Your task to perform on an android device: Play the last video I watched on Youtube Image 0: 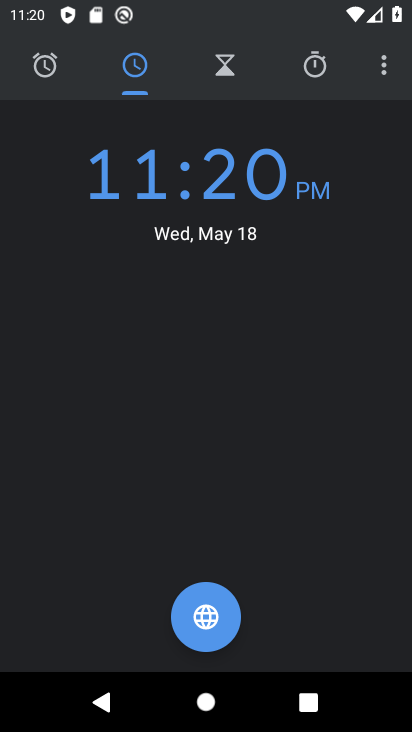
Step 0: press back button
Your task to perform on an android device: Play the last video I watched on Youtube Image 1: 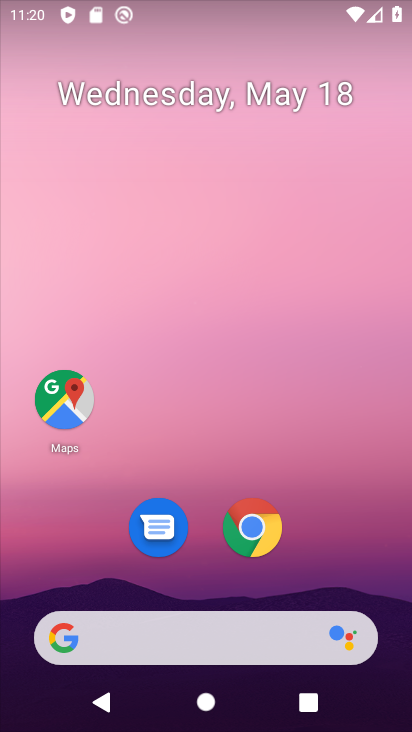
Step 1: drag from (245, 572) to (341, 6)
Your task to perform on an android device: Play the last video I watched on Youtube Image 2: 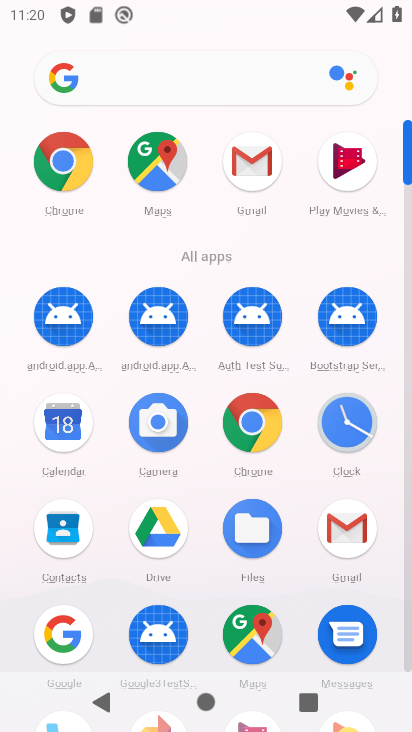
Step 2: drag from (219, 575) to (320, 25)
Your task to perform on an android device: Play the last video I watched on Youtube Image 3: 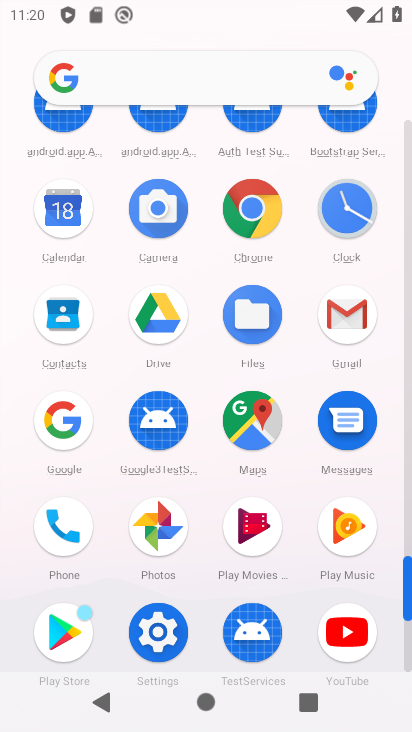
Step 3: click (347, 639)
Your task to perform on an android device: Play the last video I watched on Youtube Image 4: 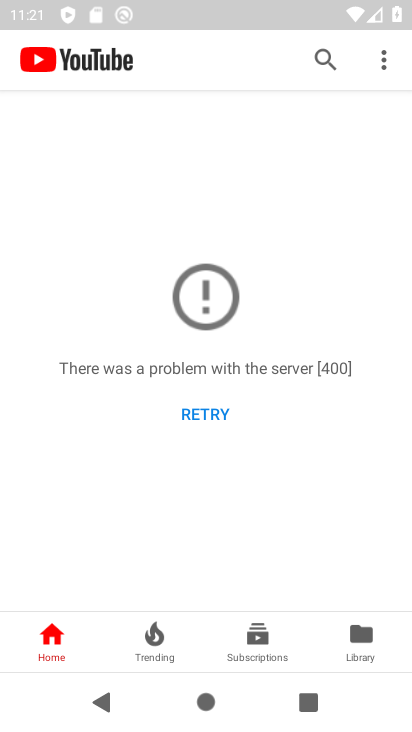
Step 4: click (353, 638)
Your task to perform on an android device: Play the last video I watched on Youtube Image 5: 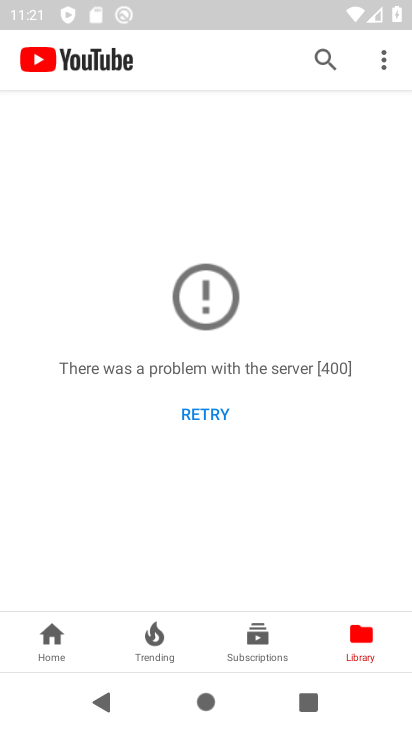
Step 5: task complete